Your task to perform on an android device: Open settings on Google Maps Image 0: 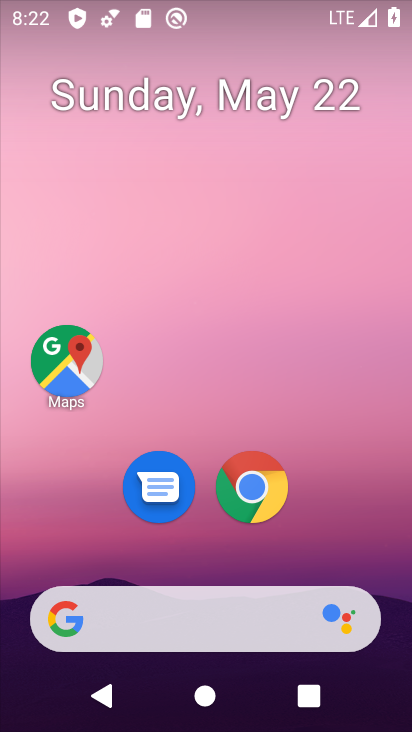
Step 0: drag from (324, 508) to (282, 9)
Your task to perform on an android device: Open settings on Google Maps Image 1: 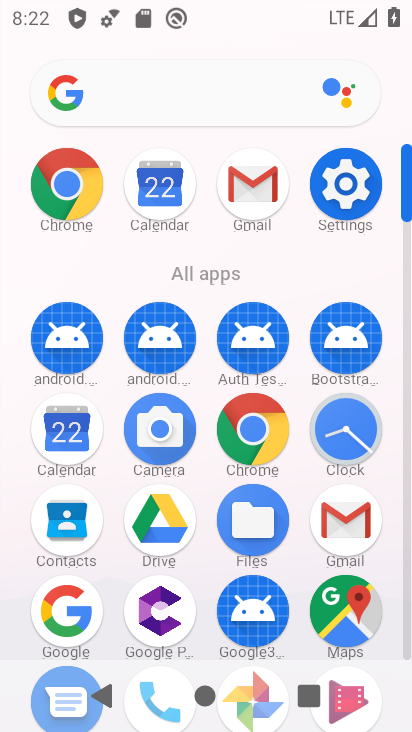
Step 1: drag from (379, 604) to (351, 470)
Your task to perform on an android device: Open settings on Google Maps Image 2: 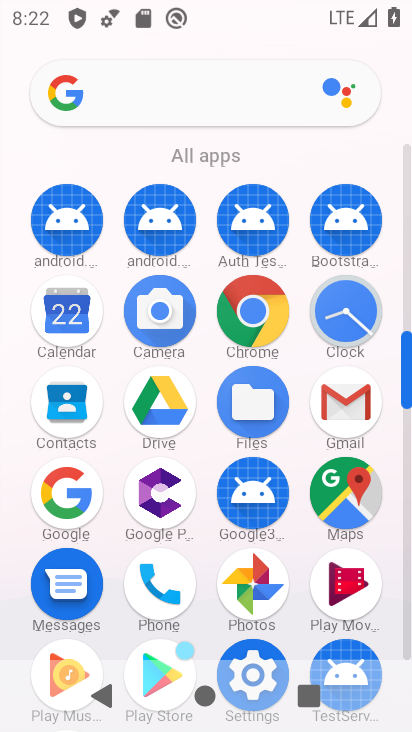
Step 2: click (344, 498)
Your task to perform on an android device: Open settings on Google Maps Image 3: 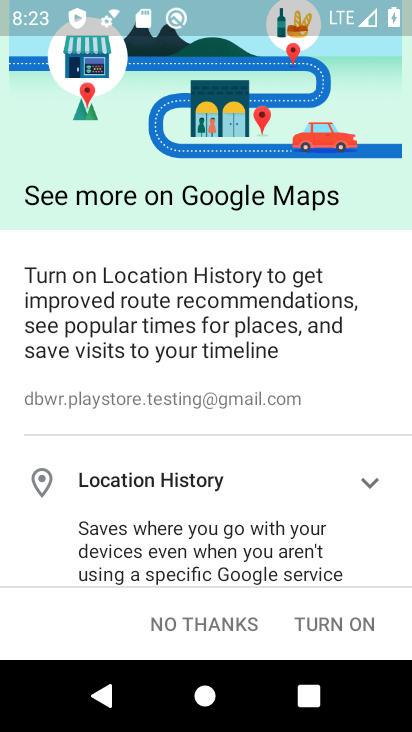
Step 3: task complete